Your task to perform on an android device: What's the weather today? Image 0: 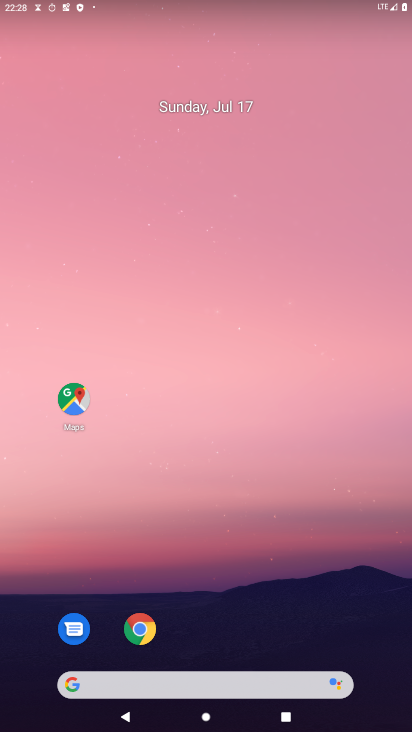
Step 0: drag from (226, 688) to (237, 41)
Your task to perform on an android device: What's the weather today? Image 1: 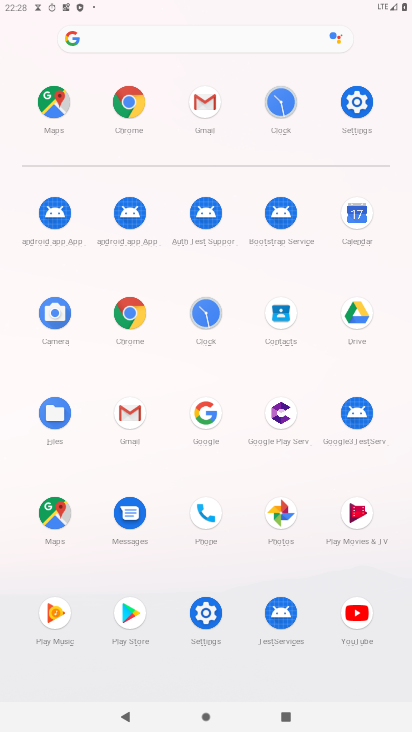
Step 1: click (205, 412)
Your task to perform on an android device: What's the weather today? Image 2: 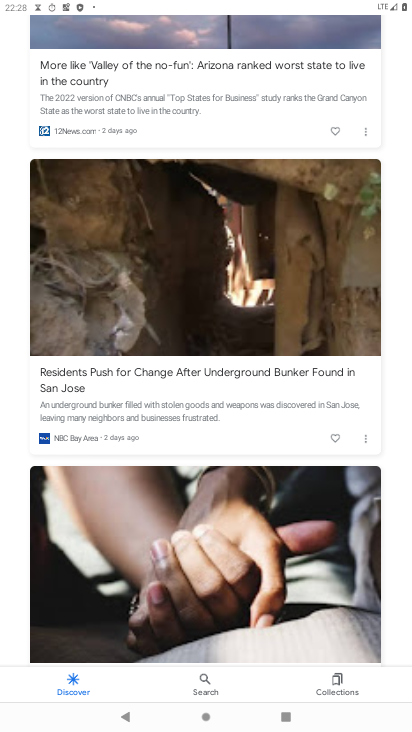
Step 2: drag from (214, 162) to (224, 654)
Your task to perform on an android device: What's the weather today? Image 3: 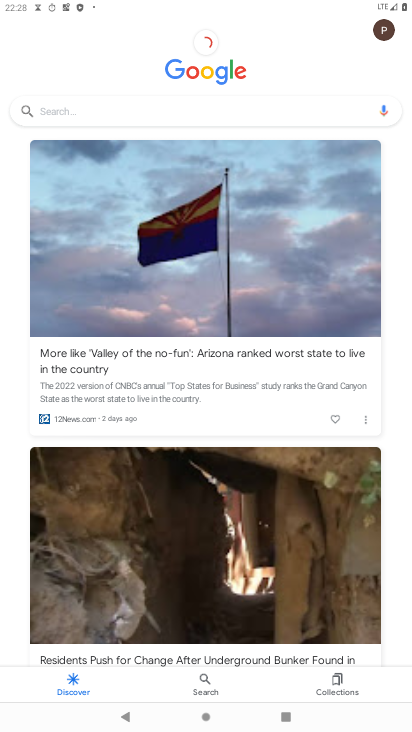
Step 3: click (211, 684)
Your task to perform on an android device: What's the weather today? Image 4: 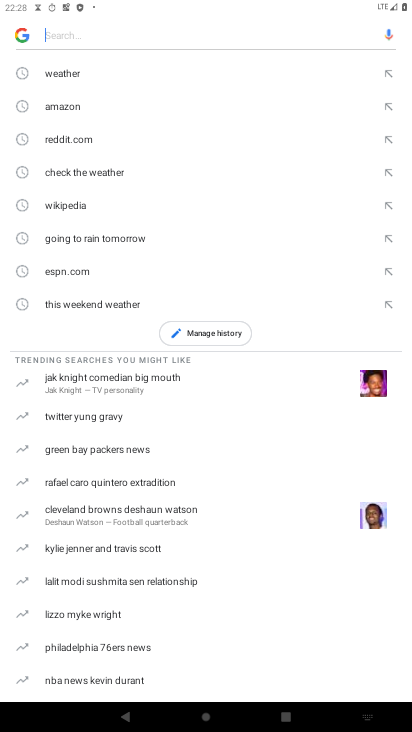
Step 4: click (55, 73)
Your task to perform on an android device: What's the weather today? Image 5: 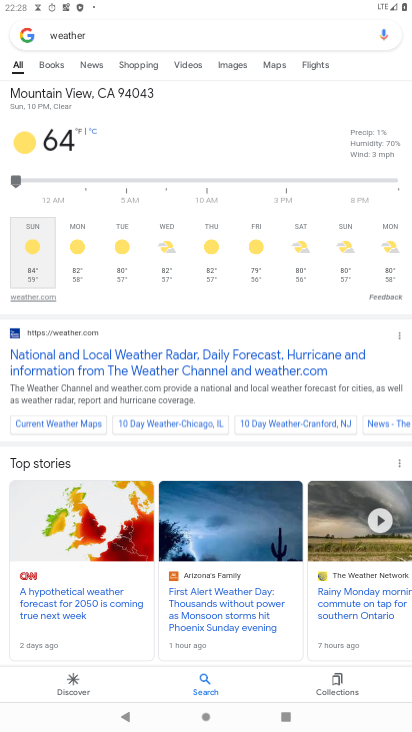
Step 5: task complete